Your task to perform on an android device: Do I have any events tomorrow? Image 0: 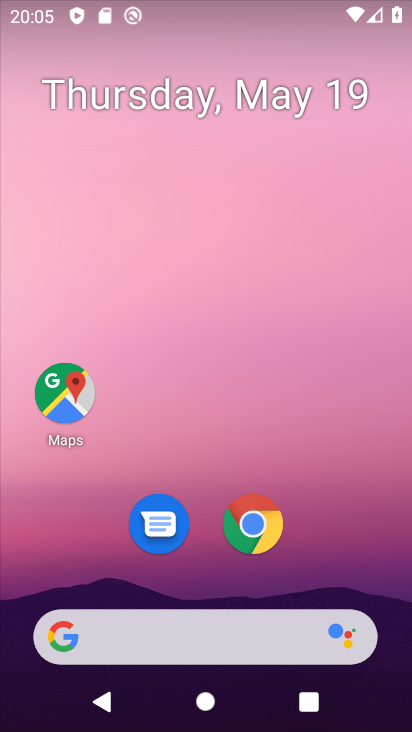
Step 0: drag from (344, 554) to (333, 165)
Your task to perform on an android device: Do I have any events tomorrow? Image 1: 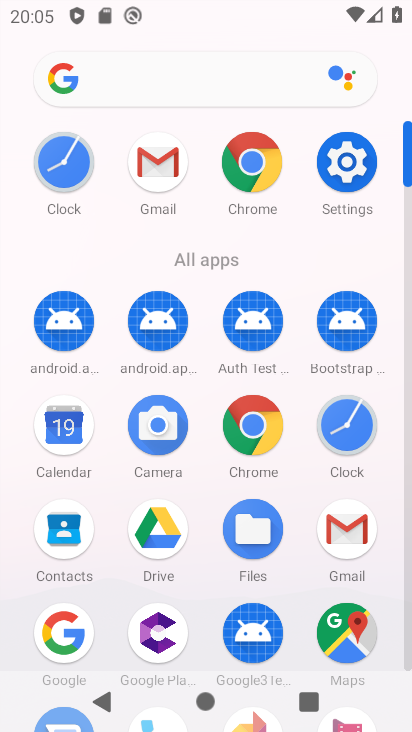
Step 1: click (69, 424)
Your task to perform on an android device: Do I have any events tomorrow? Image 2: 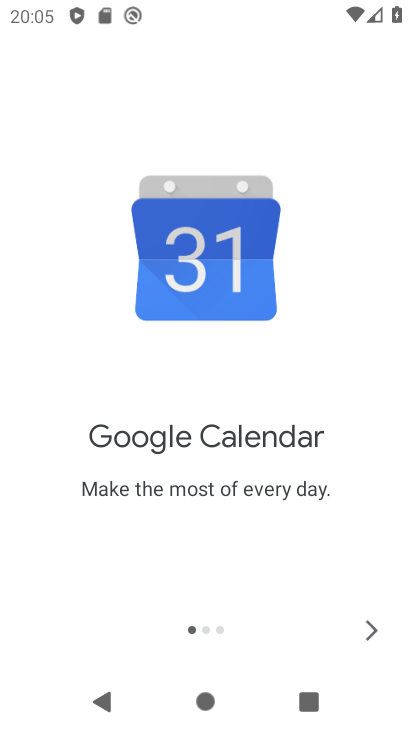
Step 2: click (374, 628)
Your task to perform on an android device: Do I have any events tomorrow? Image 3: 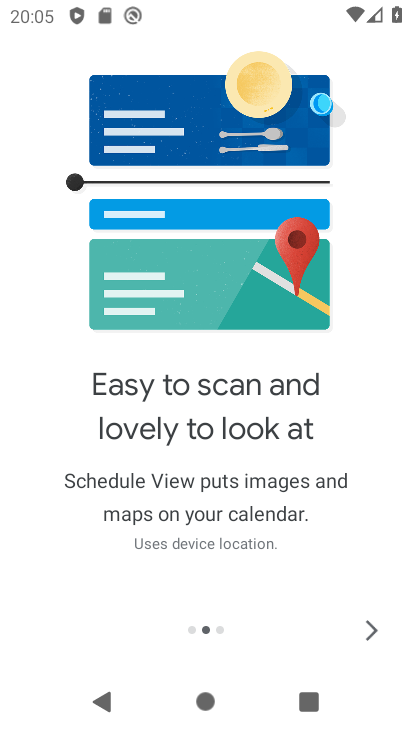
Step 3: click (374, 630)
Your task to perform on an android device: Do I have any events tomorrow? Image 4: 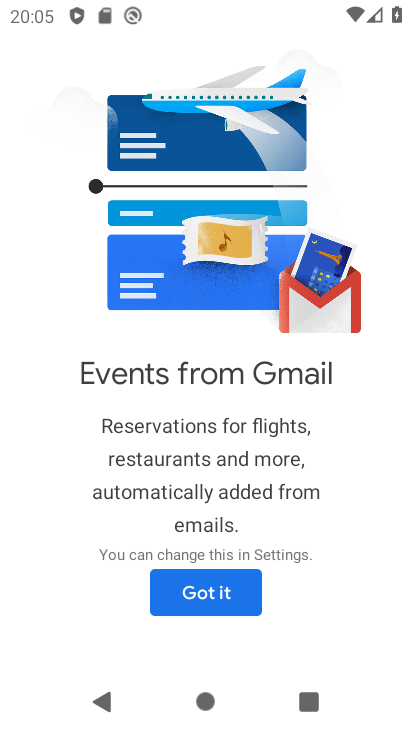
Step 4: click (247, 591)
Your task to perform on an android device: Do I have any events tomorrow? Image 5: 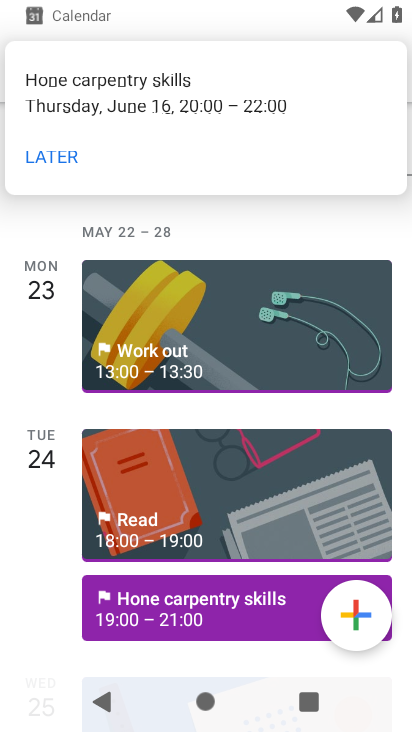
Step 5: task complete